Your task to perform on an android device: delete browsing data in the chrome app Image 0: 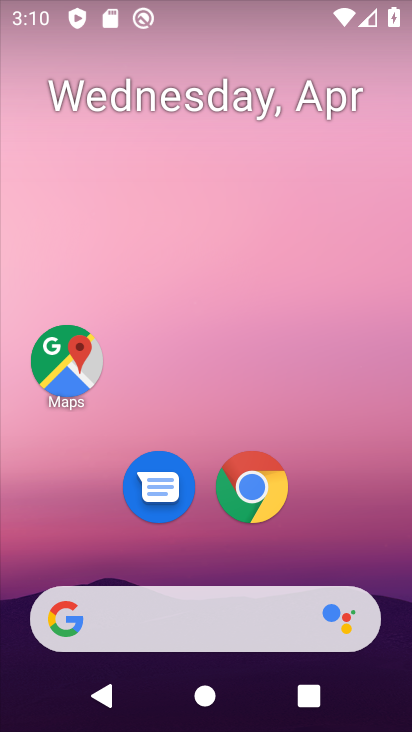
Step 0: press home button
Your task to perform on an android device: delete browsing data in the chrome app Image 1: 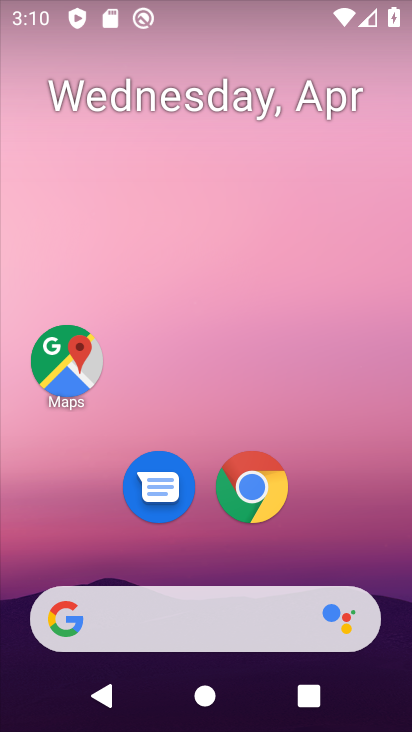
Step 1: drag from (358, 310) to (362, 224)
Your task to perform on an android device: delete browsing data in the chrome app Image 2: 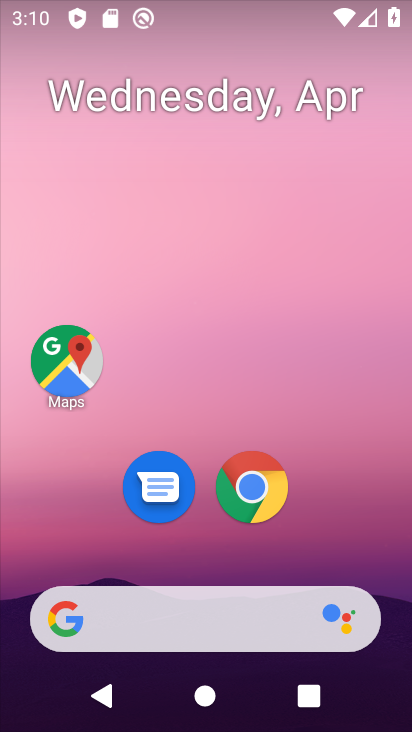
Step 2: click (262, 508)
Your task to perform on an android device: delete browsing data in the chrome app Image 3: 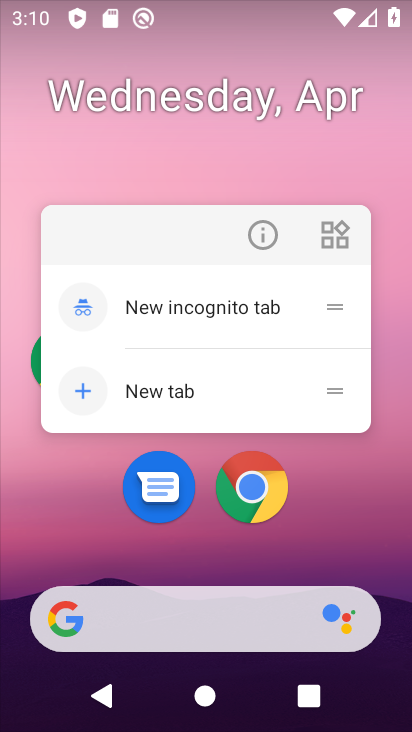
Step 3: drag from (365, 540) to (411, 217)
Your task to perform on an android device: delete browsing data in the chrome app Image 4: 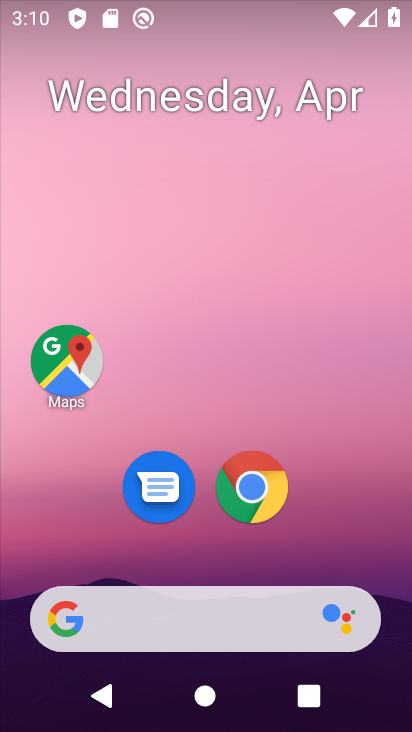
Step 4: drag from (388, 557) to (372, 193)
Your task to perform on an android device: delete browsing data in the chrome app Image 5: 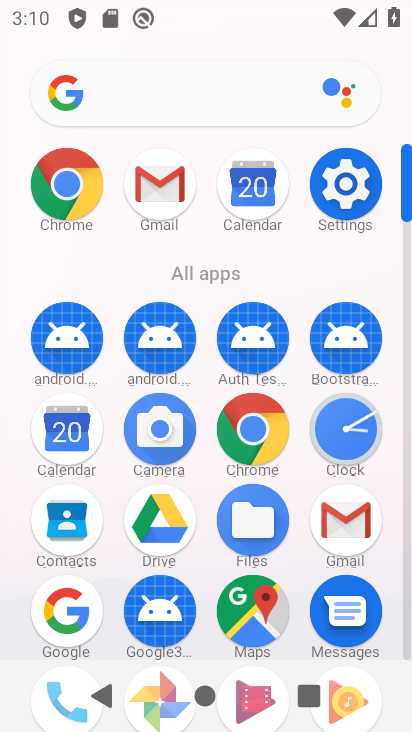
Step 5: click (269, 420)
Your task to perform on an android device: delete browsing data in the chrome app Image 6: 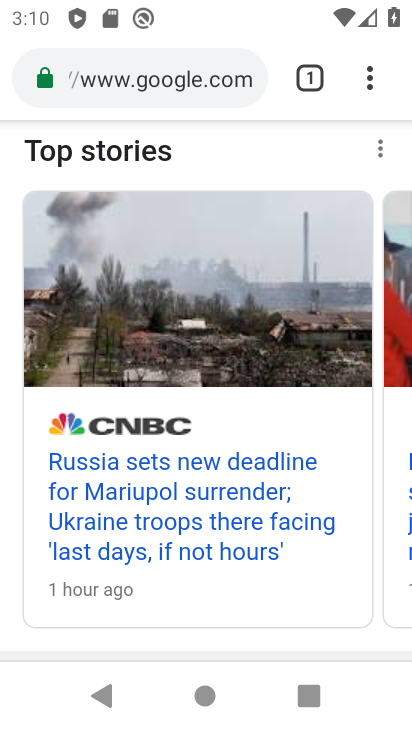
Step 6: click (368, 75)
Your task to perform on an android device: delete browsing data in the chrome app Image 7: 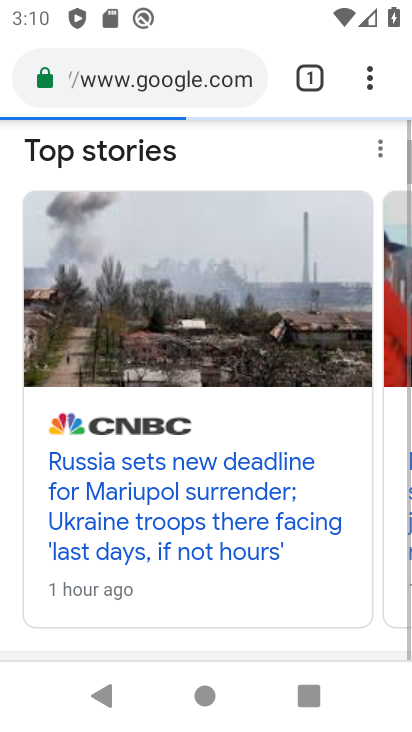
Step 7: drag from (368, 74) to (137, 440)
Your task to perform on an android device: delete browsing data in the chrome app Image 8: 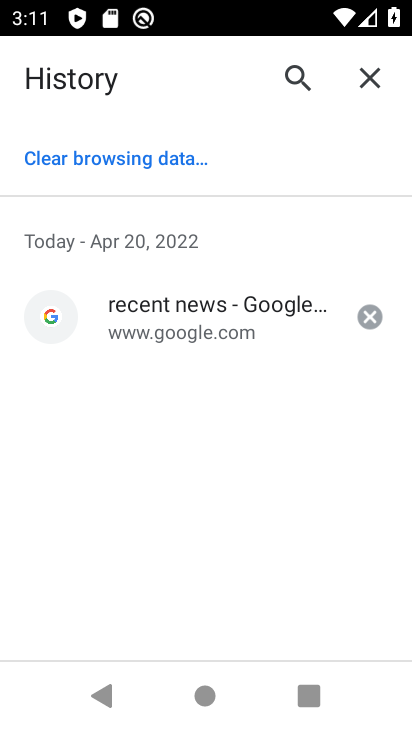
Step 8: click (154, 153)
Your task to perform on an android device: delete browsing data in the chrome app Image 9: 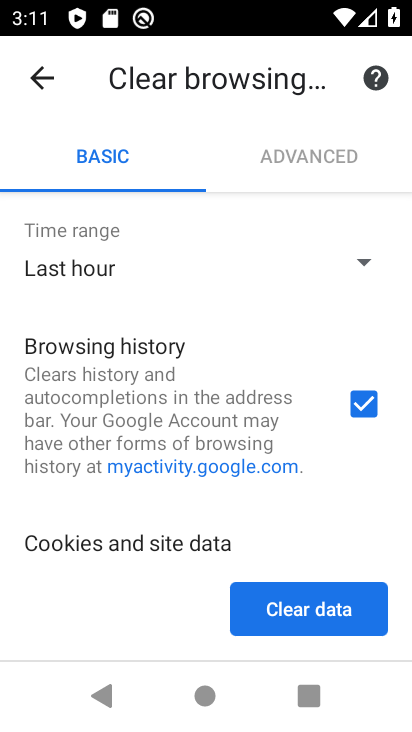
Step 9: click (312, 607)
Your task to perform on an android device: delete browsing data in the chrome app Image 10: 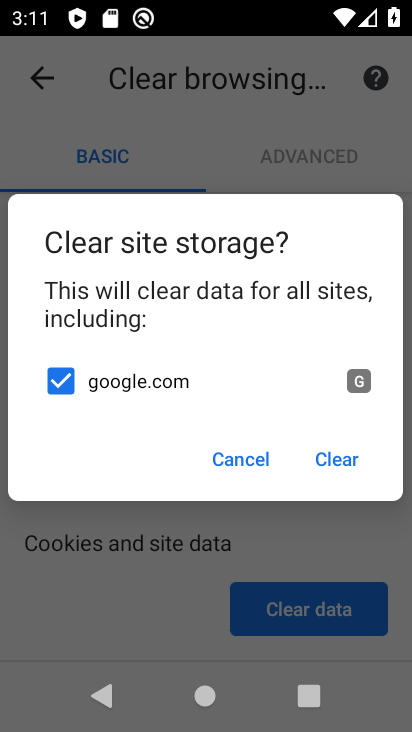
Step 10: click (323, 468)
Your task to perform on an android device: delete browsing data in the chrome app Image 11: 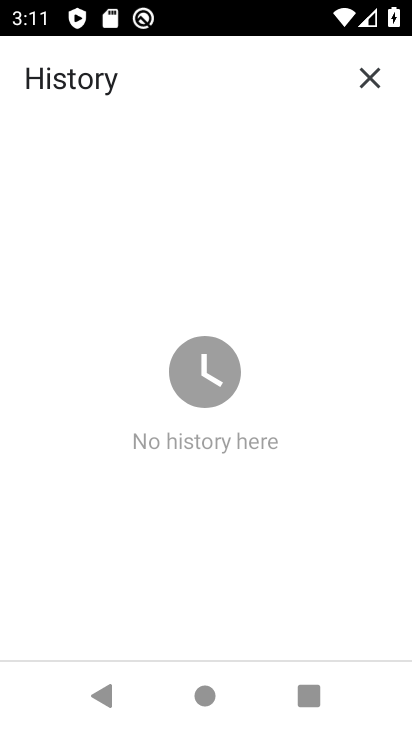
Step 11: task complete